Your task to perform on an android device: Search for amazon basics triple a on bestbuy.com, select the first entry, and add it to the cart. Image 0: 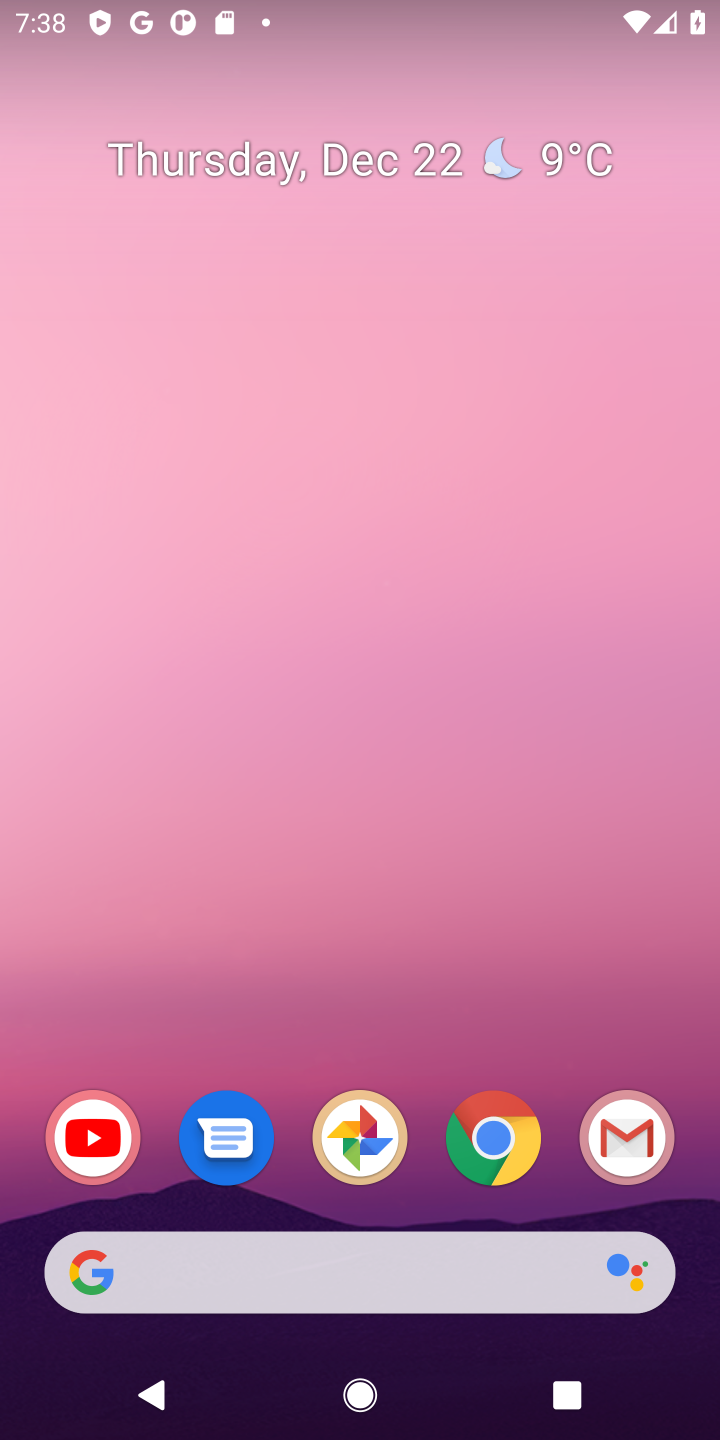
Step 0: click (503, 1137)
Your task to perform on an android device: Search for amazon basics triple a on bestbuy.com, select the first entry, and add it to the cart. Image 1: 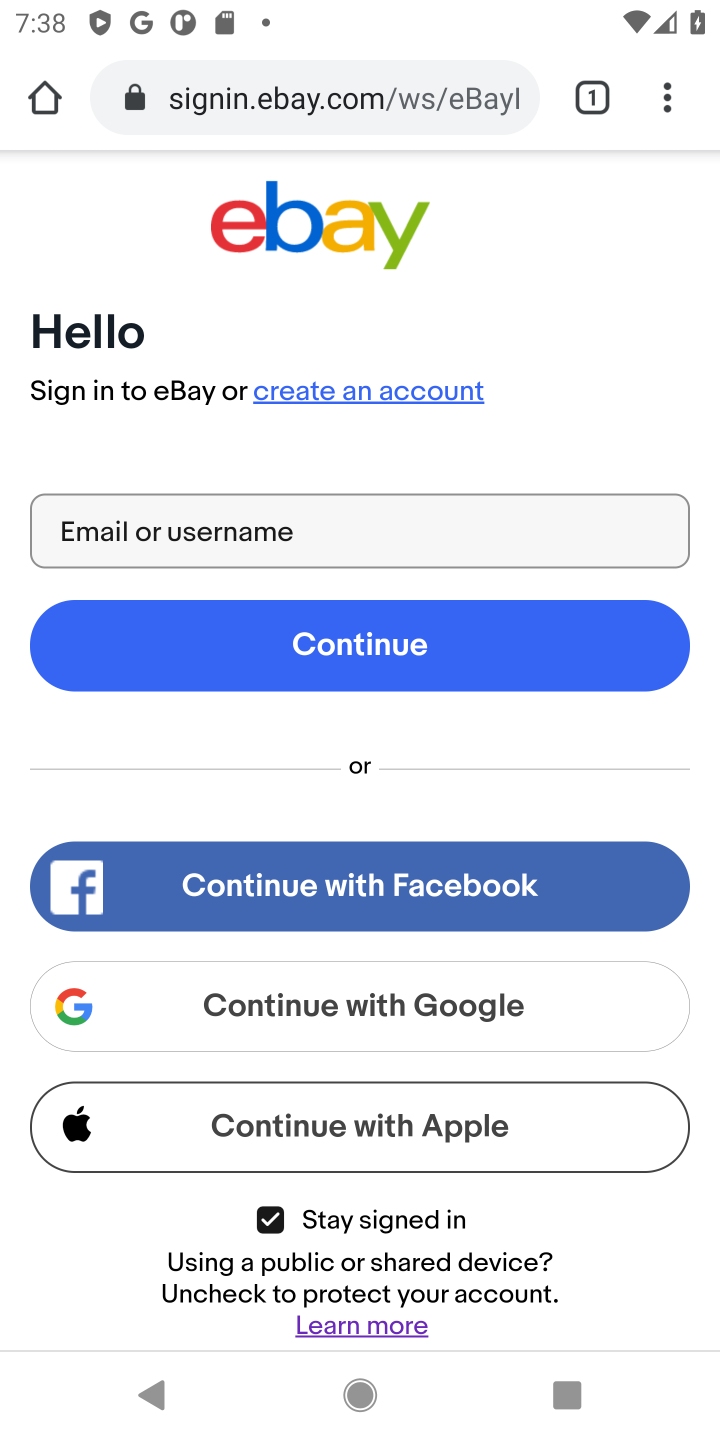
Step 1: click (33, 101)
Your task to perform on an android device: Search for amazon basics triple a on bestbuy.com, select the first entry, and add it to the cart. Image 2: 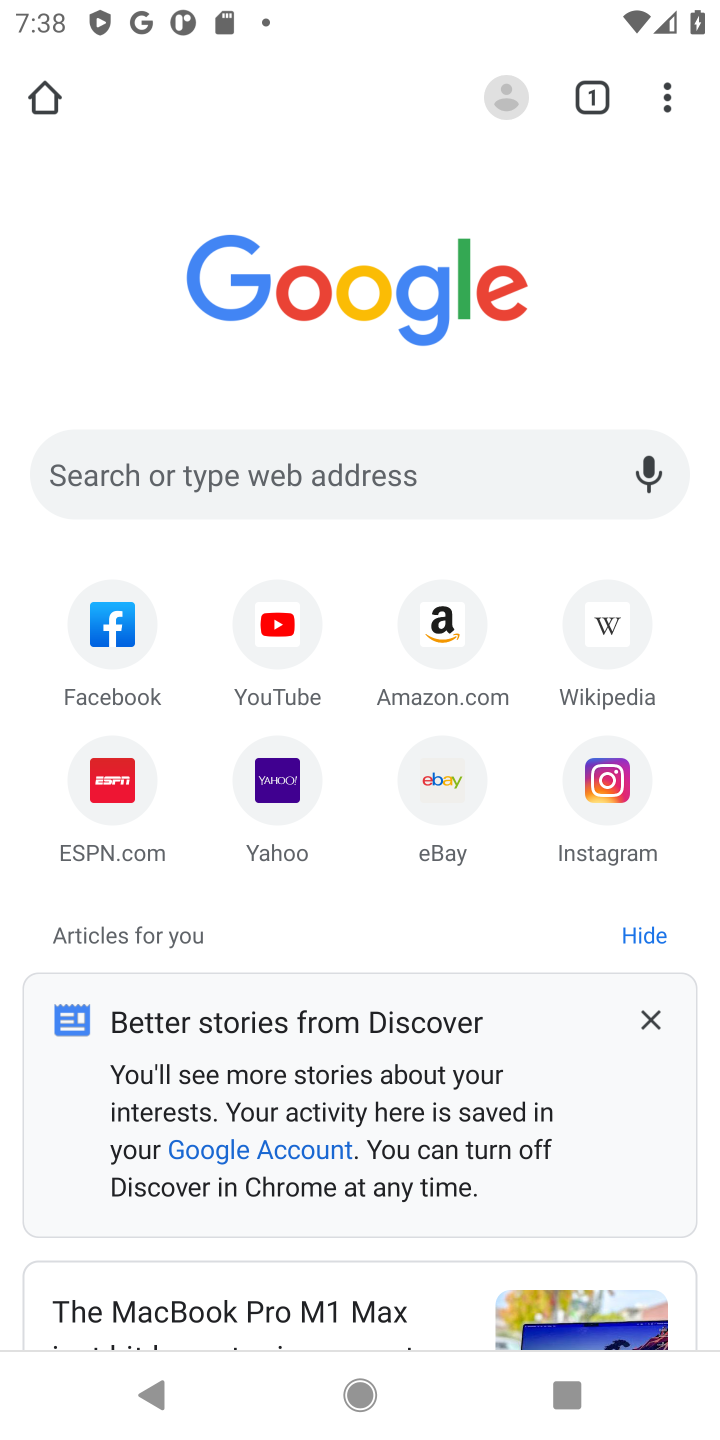
Step 2: click (321, 484)
Your task to perform on an android device: Search for amazon basics triple a on bestbuy.com, select the first entry, and add it to the cart. Image 3: 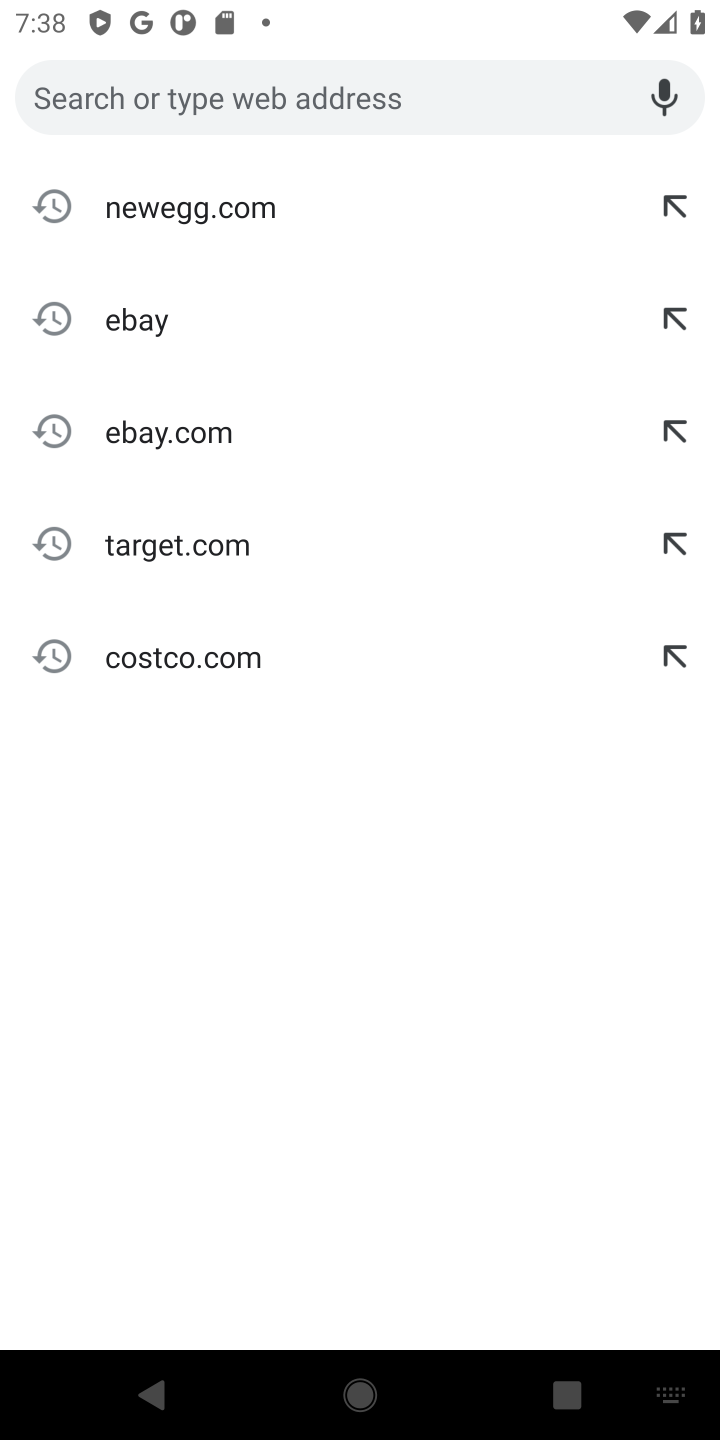
Step 3: drag from (682, 1412) to (534, 1327)
Your task to perform on an android device: Search for amazon basics triple a on bestbuy.com, select the first entry, and add it to the cart. Image 4: 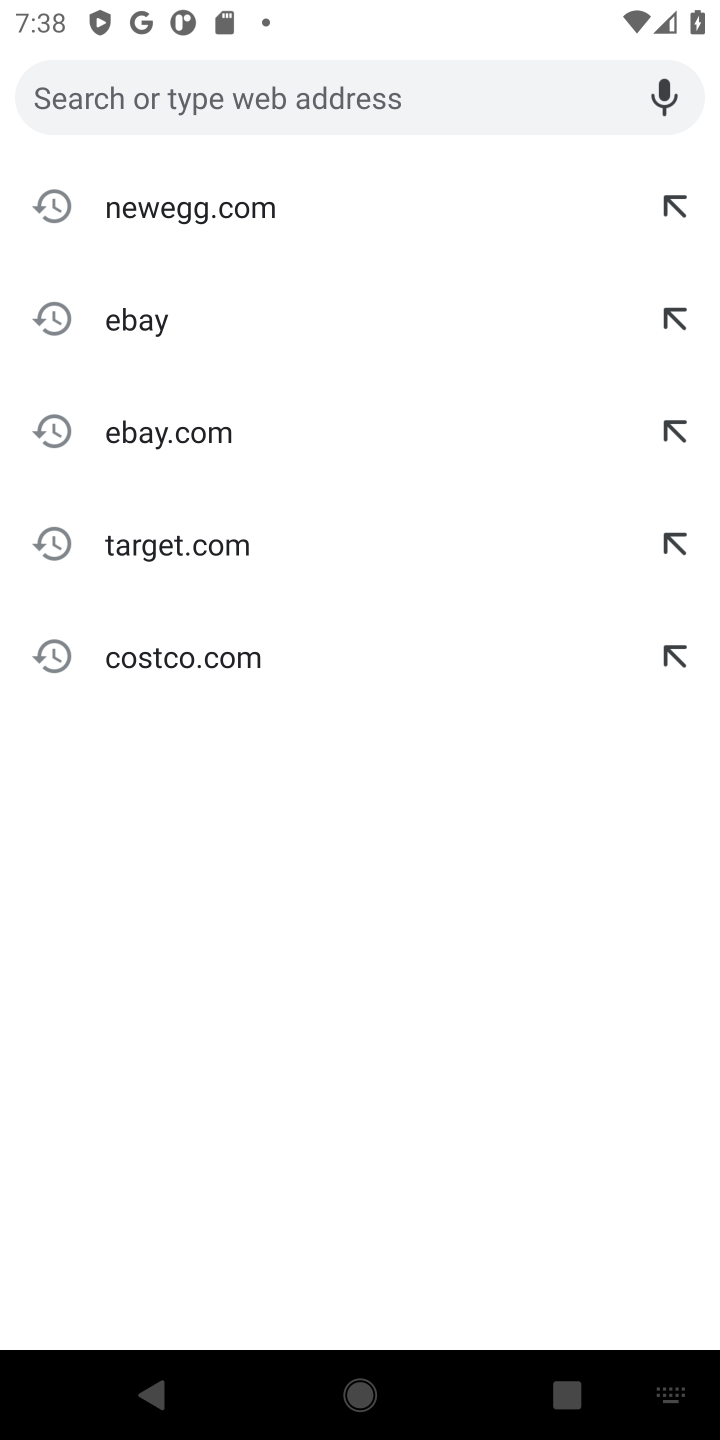
Step 4: type "bestbuy"
Your task to perform on an android device: Search for amazon basics triple a on bestbuy.com, select the first entry, and add it to the cart. Image 5: 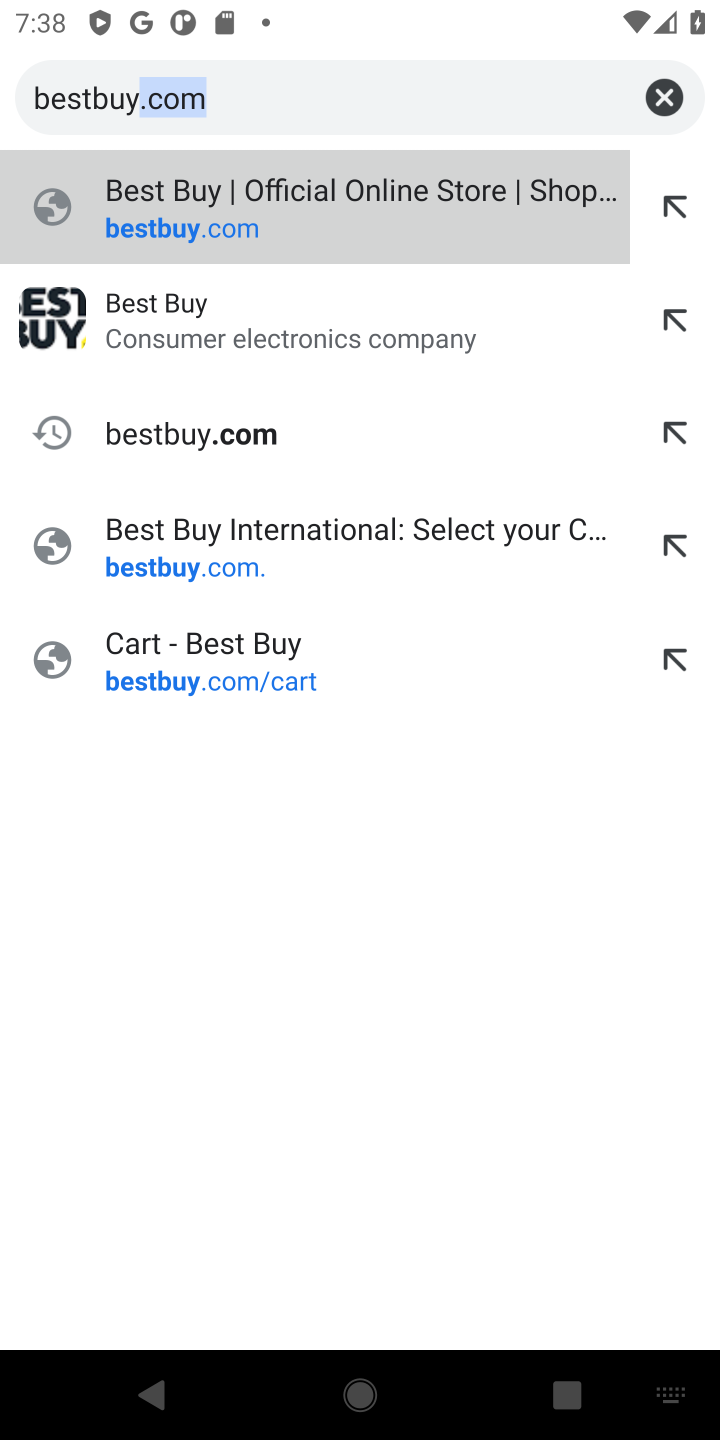
Step 5: click (354, 94)
Your task to perform on an android device: Search for amazon basics triple a on bestbuy.com, select the first entry, and add it to the cart. Image 6: 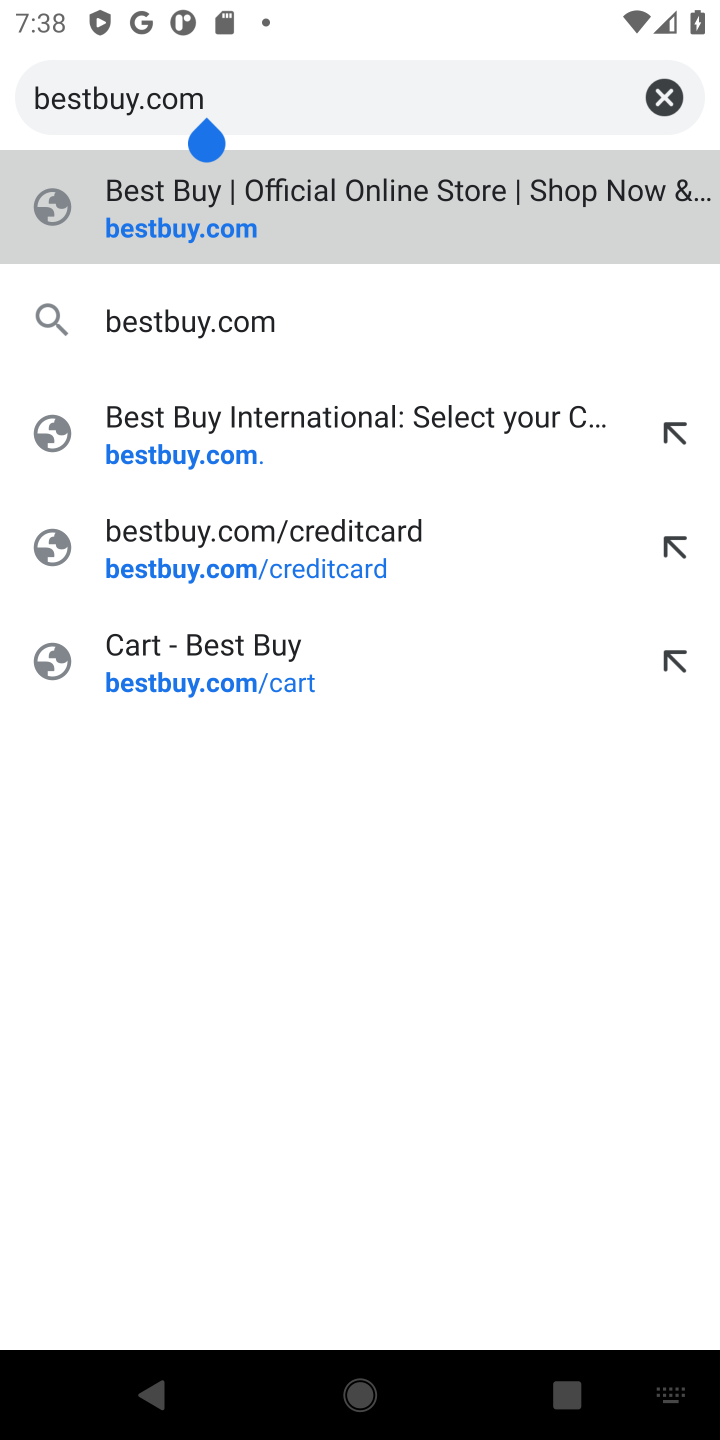
Step 6: click (254, 327)
Your task to perform on an android device: Search for amazon basics triple a on bestbuy.com, select the first entry, and add it to the cart. Image 7: 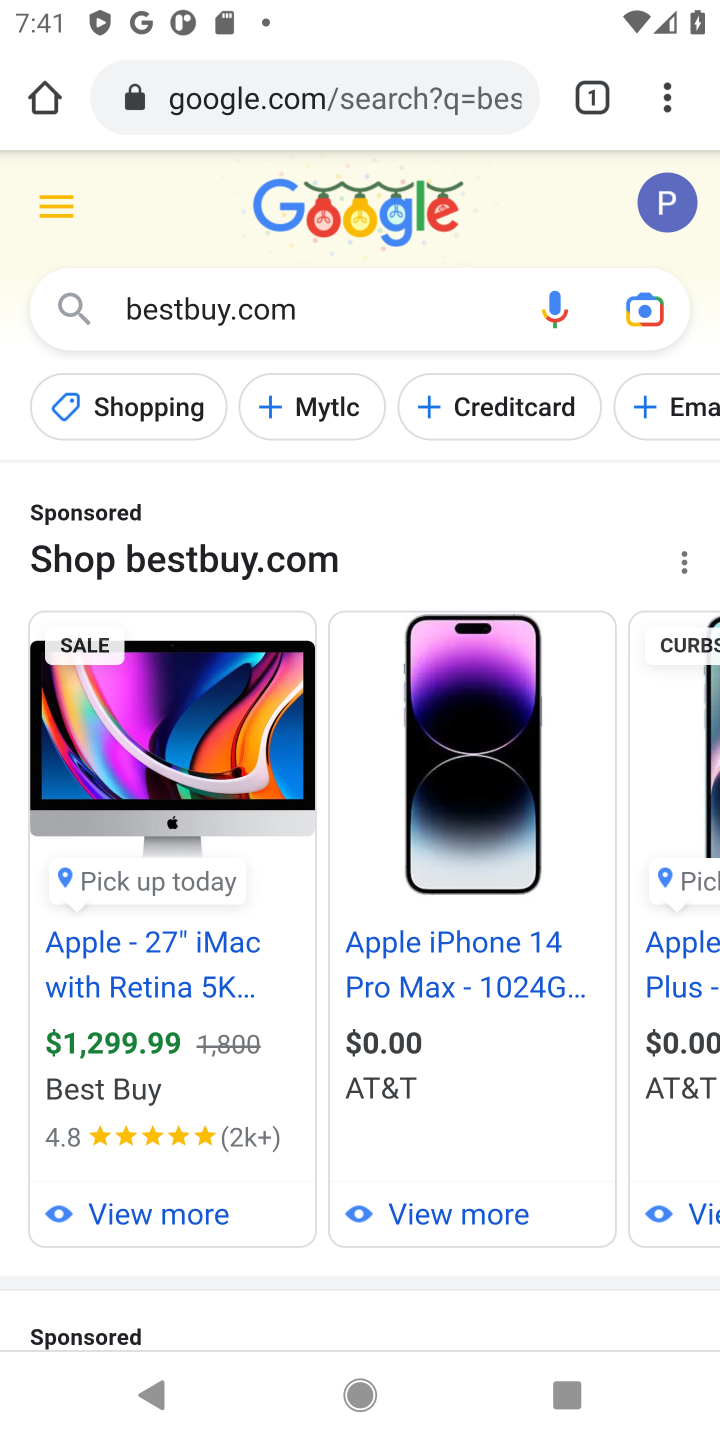
Step 7: drag from (410, 1263) to (499, 828)
Your task to perform on an android device: Search for amazon basics triple a on bestbuy.com, select the first entry, and add it to the cart. Image 8: 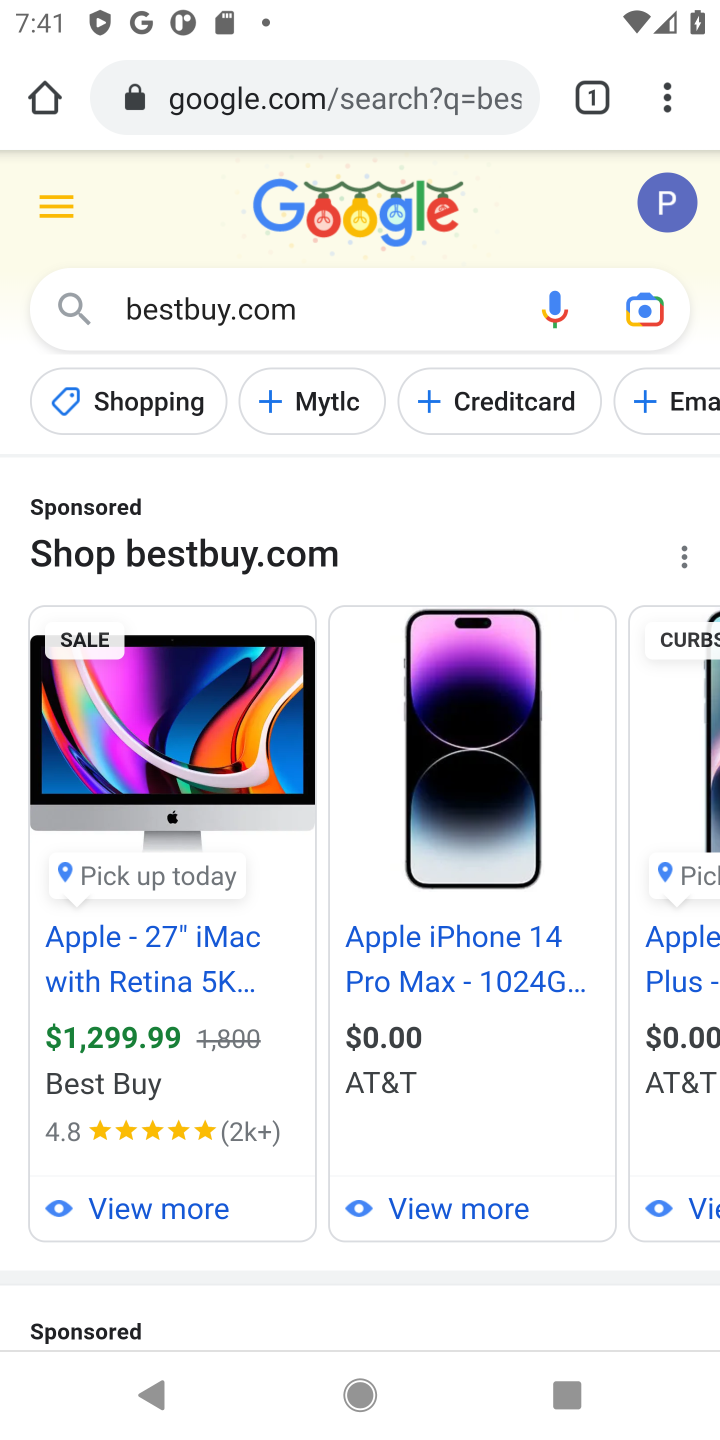
Step 8: drag from (242, 1271) to (287, 690)
Your task to perform on an android device: Search for amazon basics triple a on bestbuy.com, select the first entry, and add it to the cart. Image 9: 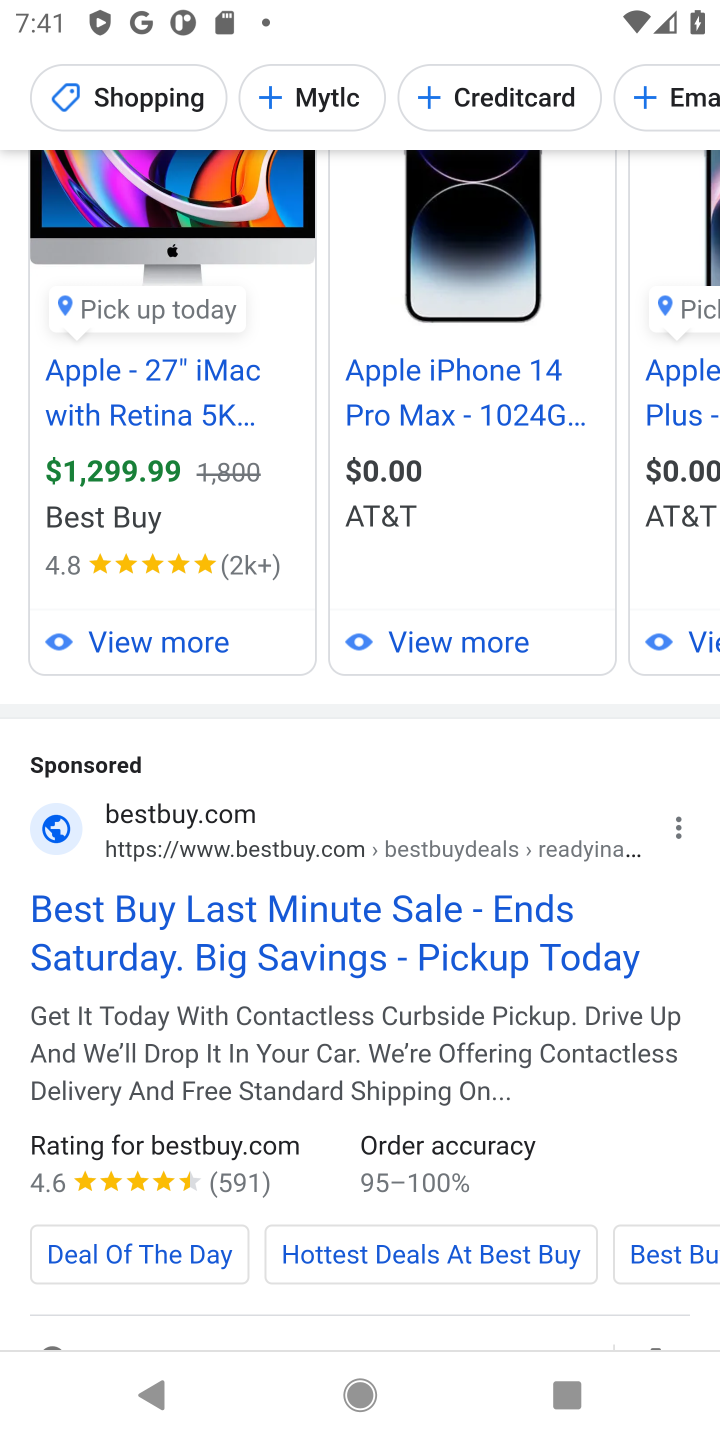
Step 9: click (210, 826)
Your task to perform on an android device: Search for amazon basics triple a on bestbuy.com, select the first entry, and add it to the cart. Image 10: 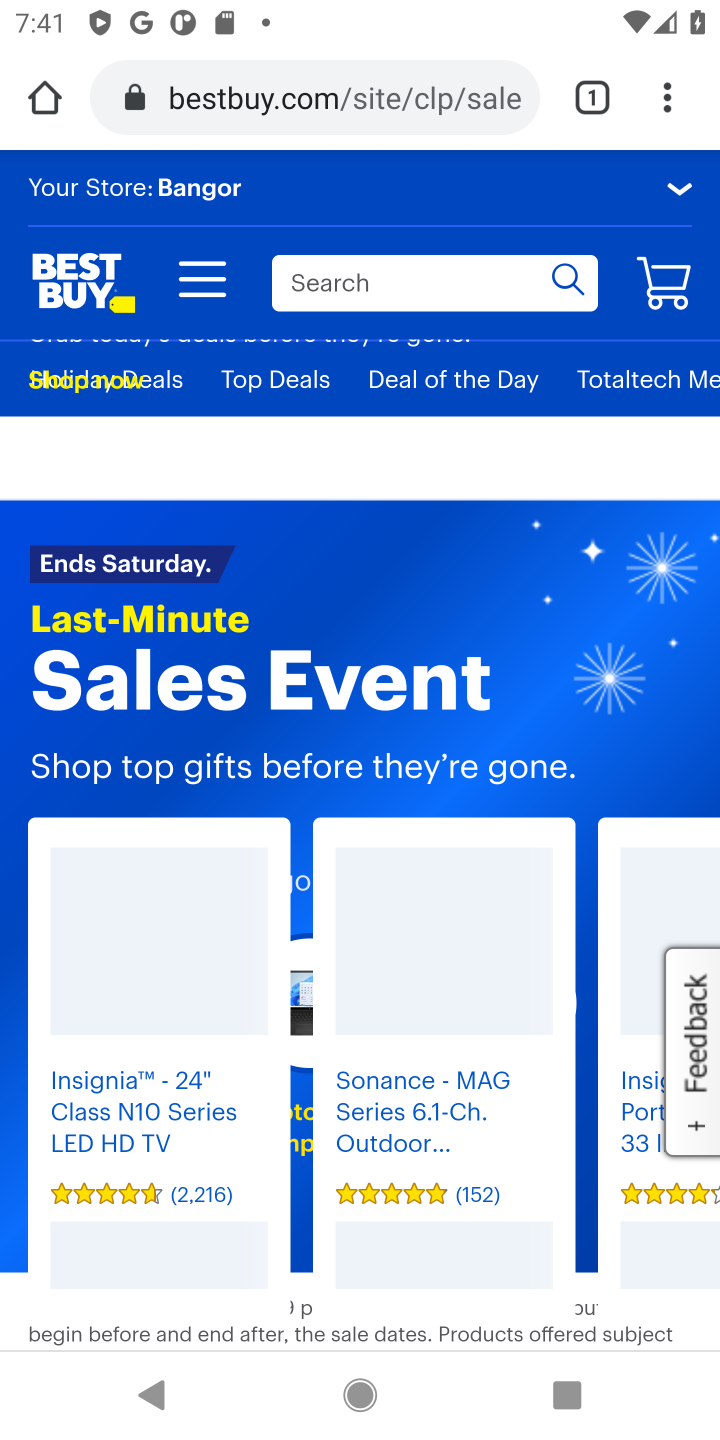
Step 10: click (508, 280)
Your task to perform on an android device: Search for amazon basics triple a on bestbuy.com, select the first entry, and add it to the cart. Image 11: 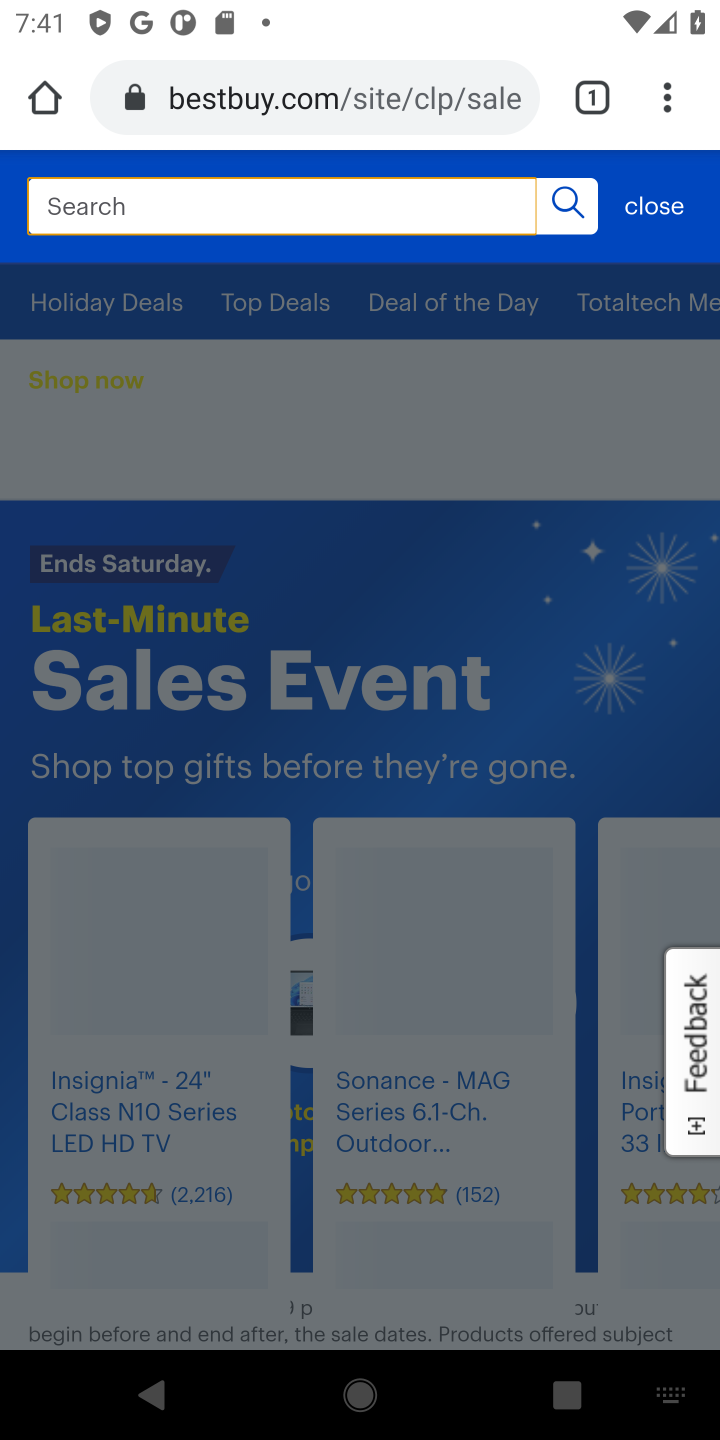
Step 11: press enter
Your task to perform on an android device: Search for amazon basics triple a on bestbuy.com, select the first entry, and add it to the cart. Image 12: 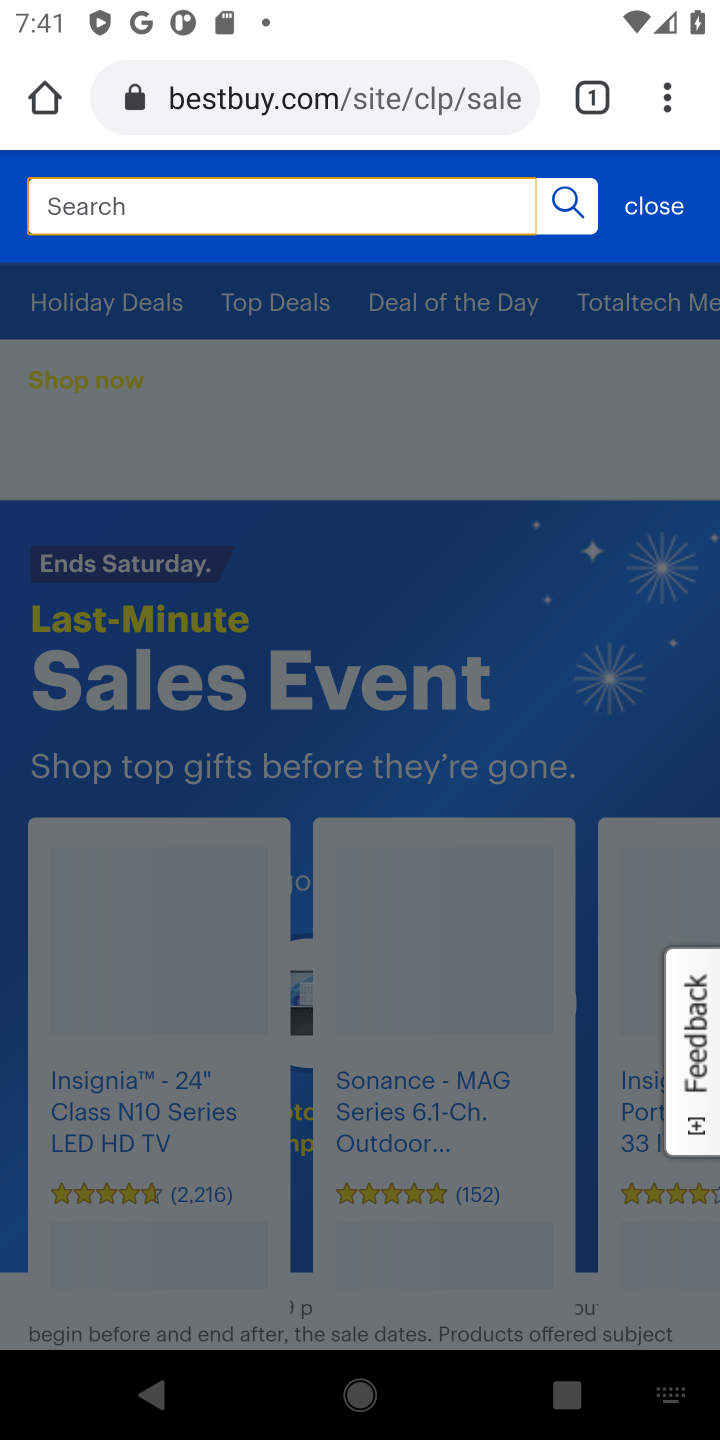
Step 12: type "amazon basics triple"
Your task to perform on an android device: Search for amazon basics triple a on bestbuy.com, select the first entry, and add it to the cart. Image 13: 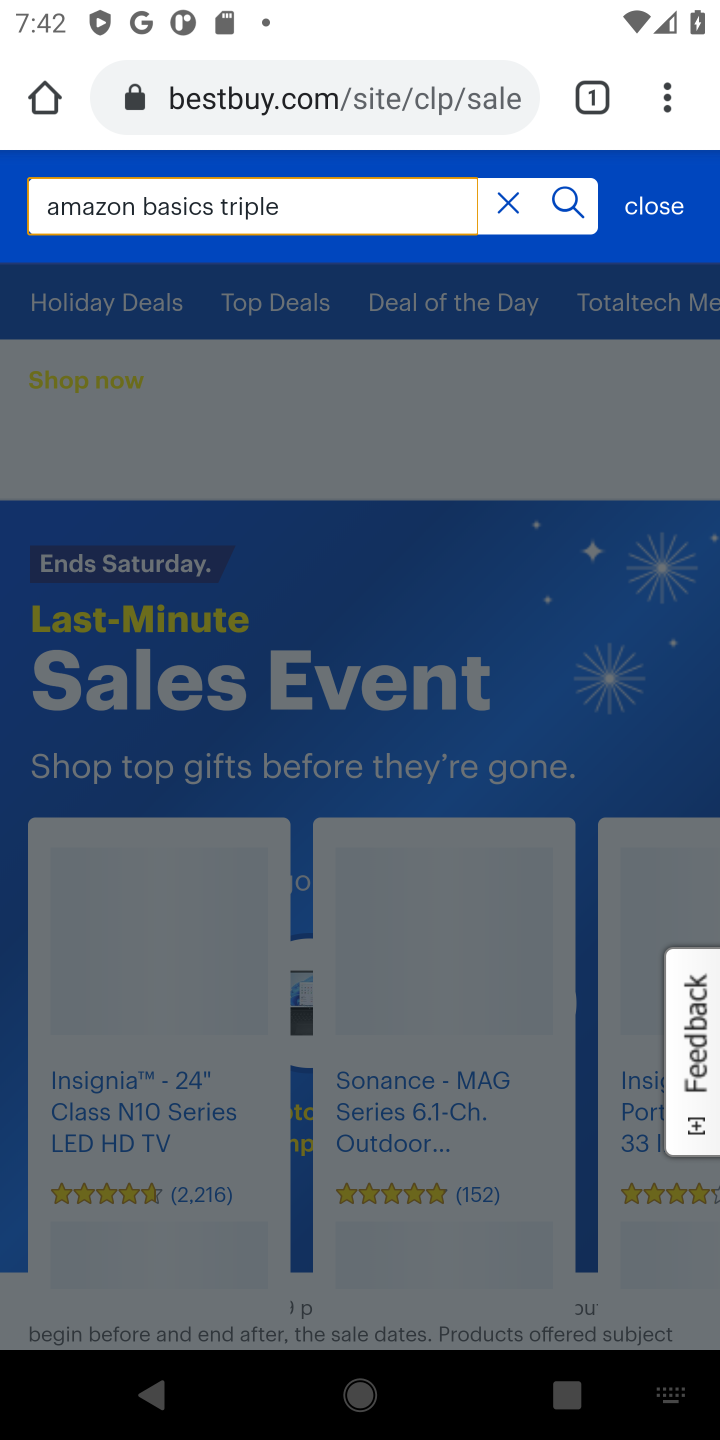
Step 13: click (577, 198)
Your task to perform on an android device: Search for amazon basics triple a on bestbuy.com, select the first entry, and add it to the cart. Image 14: 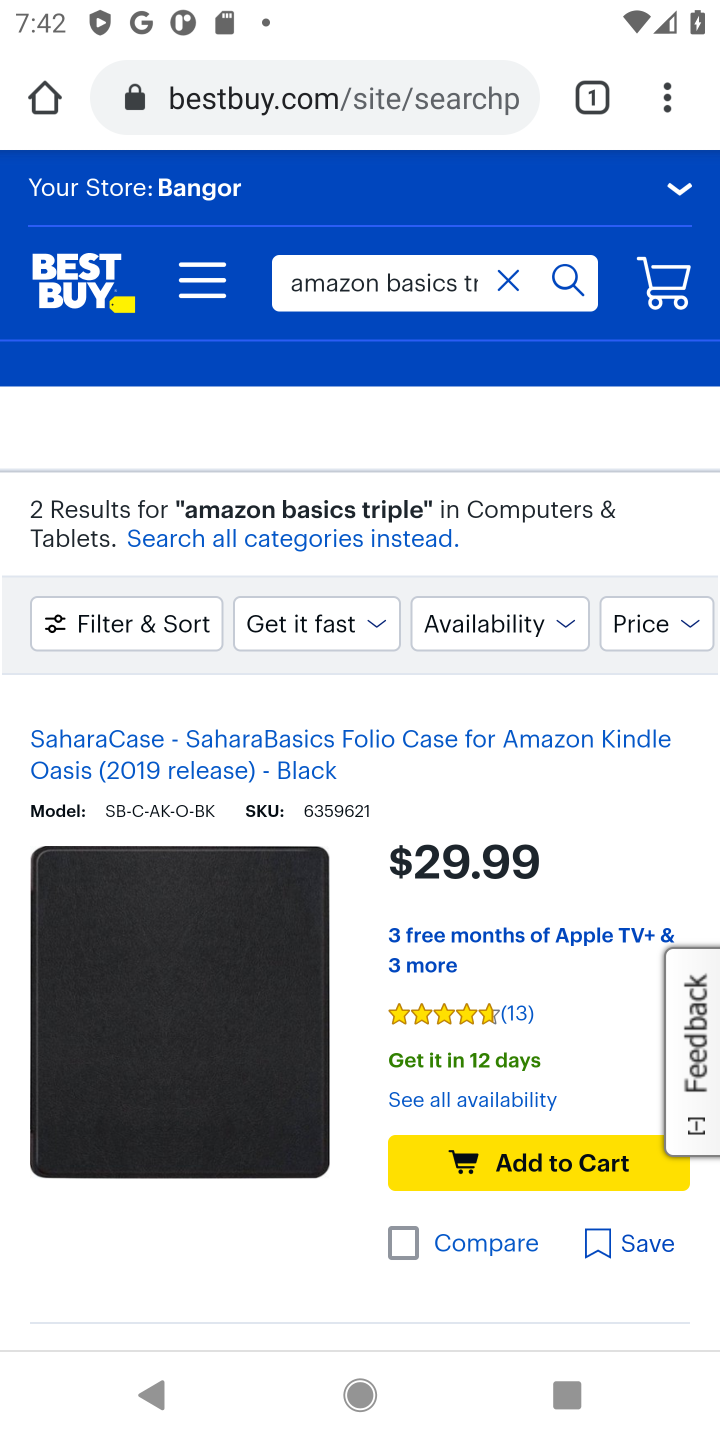
Step 14: drag from (296, 1014) to (326, 739)
Your task to perform on an android device: Search for amazon basics triple a on bestbuy.com, select the first entry, and add it to the cart. Image 15: 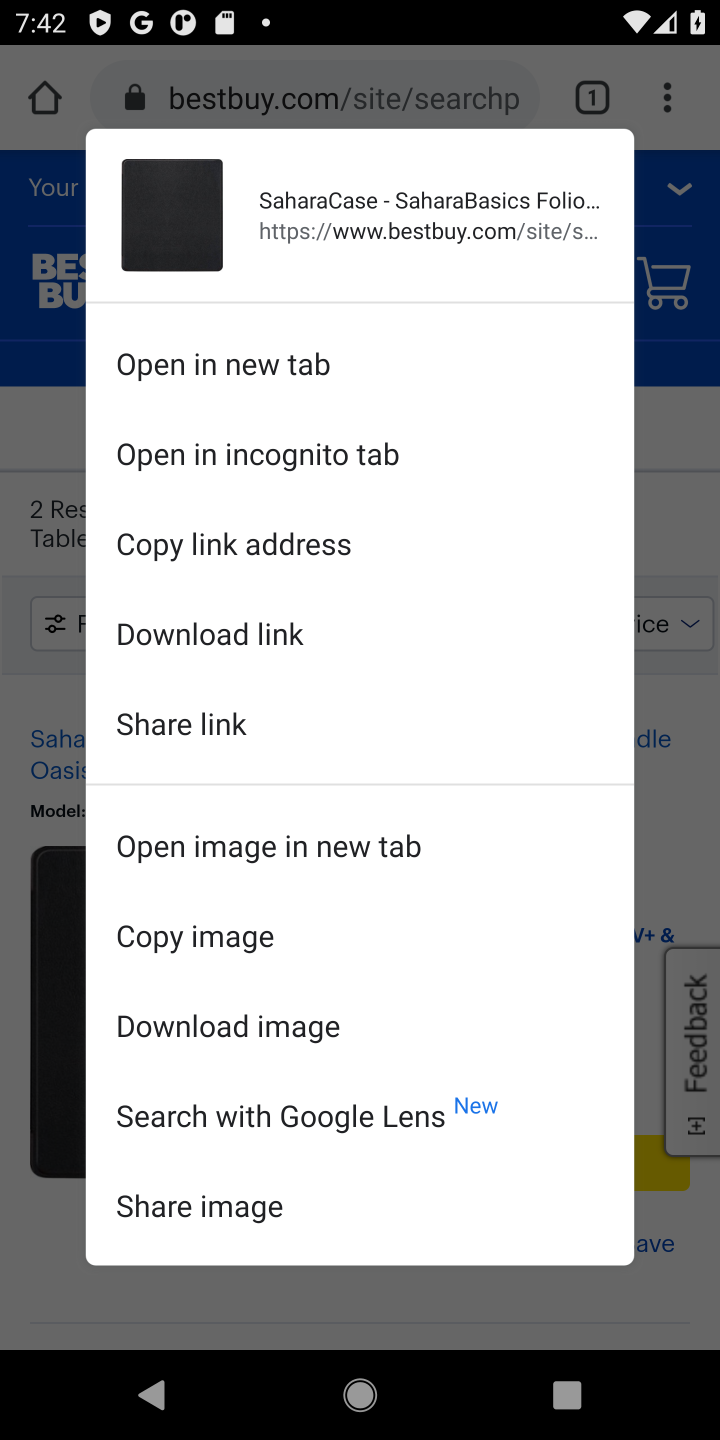
Step 15: click (675, 821)
Your task to perform on an android device: Search for amazon basics triple a on bestbuy.com, select the first entry, and add it to the cart. Image 16: 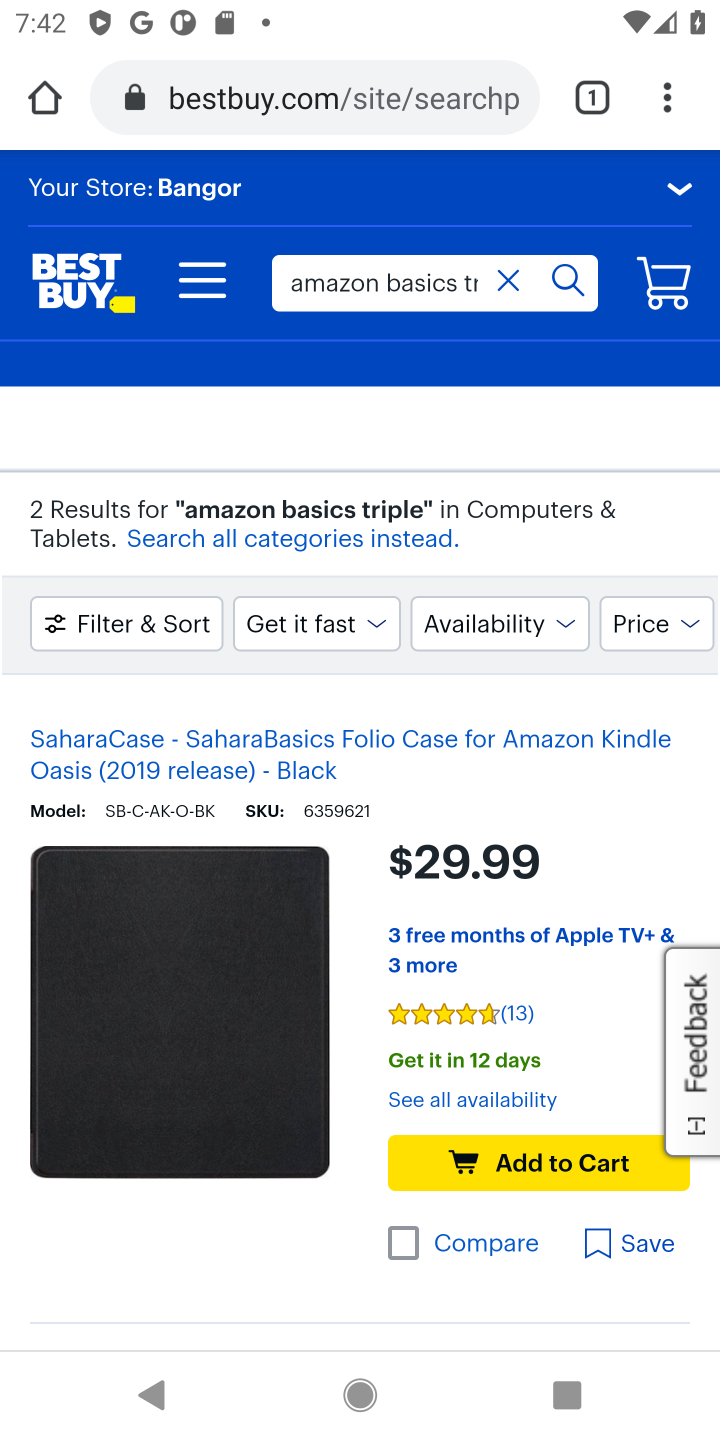
Step 16: drag from (564, 865) to (648, 450)
Your task to perform on an android device: Search for amazon basics triple a on bestbuy.com, select the first entry, and add it to the cart. Image 17: 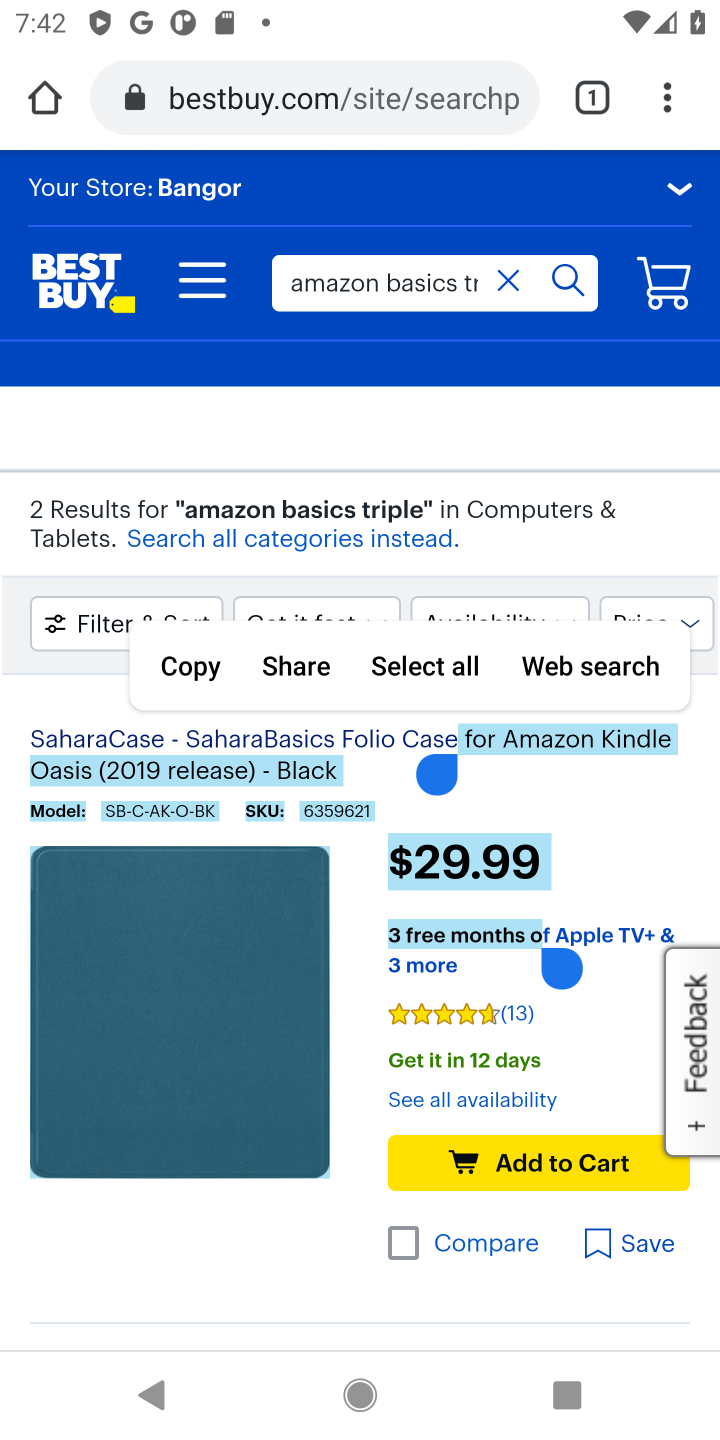
Step 17: click (292, 1278)
Your task to perform on an android device: Search for amazon basics triple a on bestbuy.com, select the first entry, and add it to the cart. Image 18: 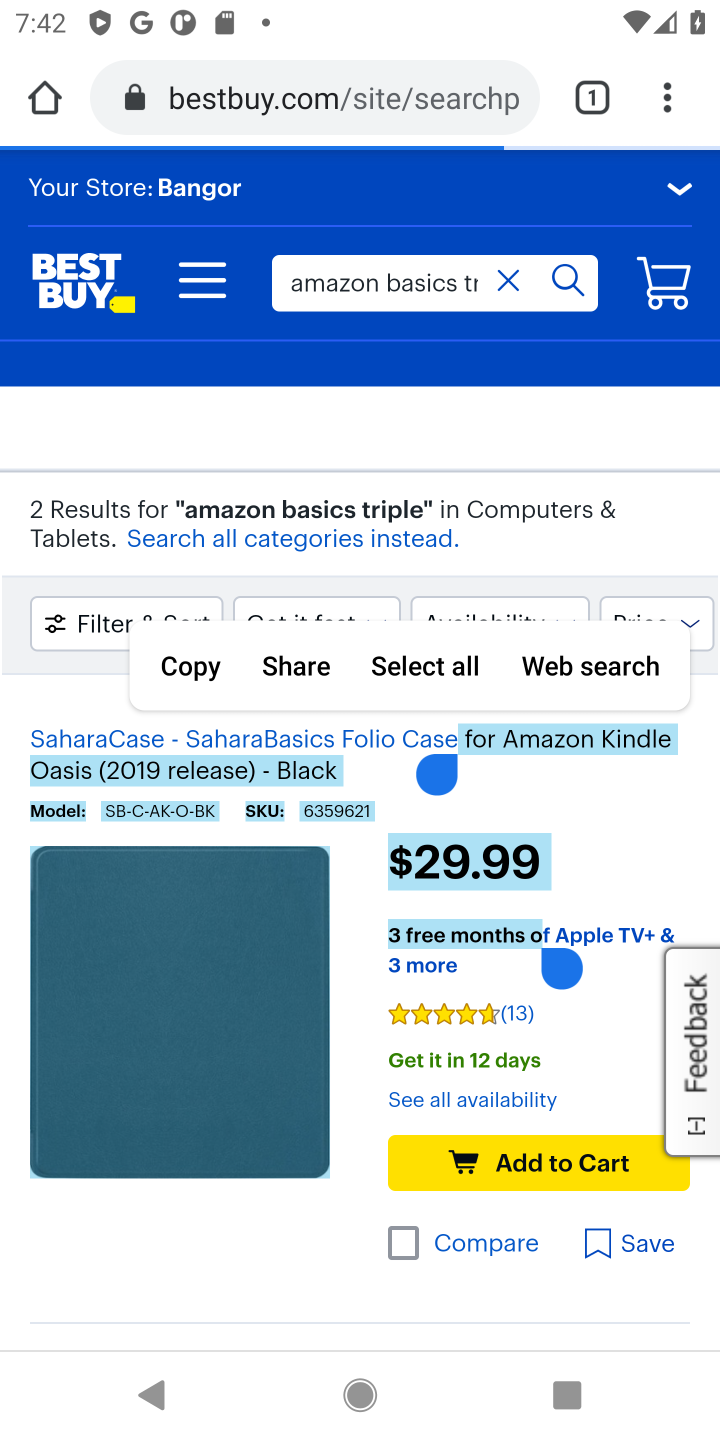
Step 18: click (292, 1278)
Your task to perform on an android device: Search for amazon basics triple a on bestbuy.com, select the first entry, and add it to the cart. Image 19: 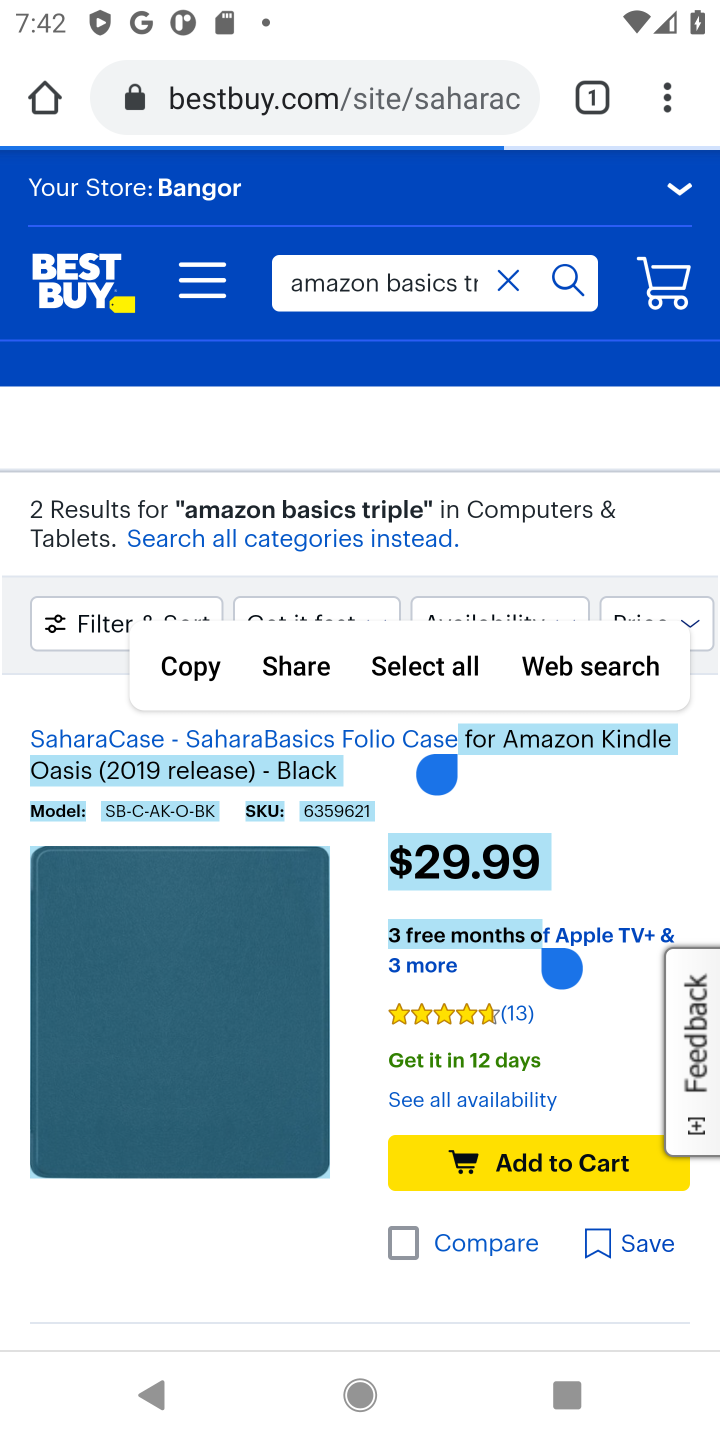
Step 19: click (642, 801)
Your task to perform on an android device: Search for amazon basics triple a on bestbuy.com, select the first entry, and add it to the cart. Image 20: 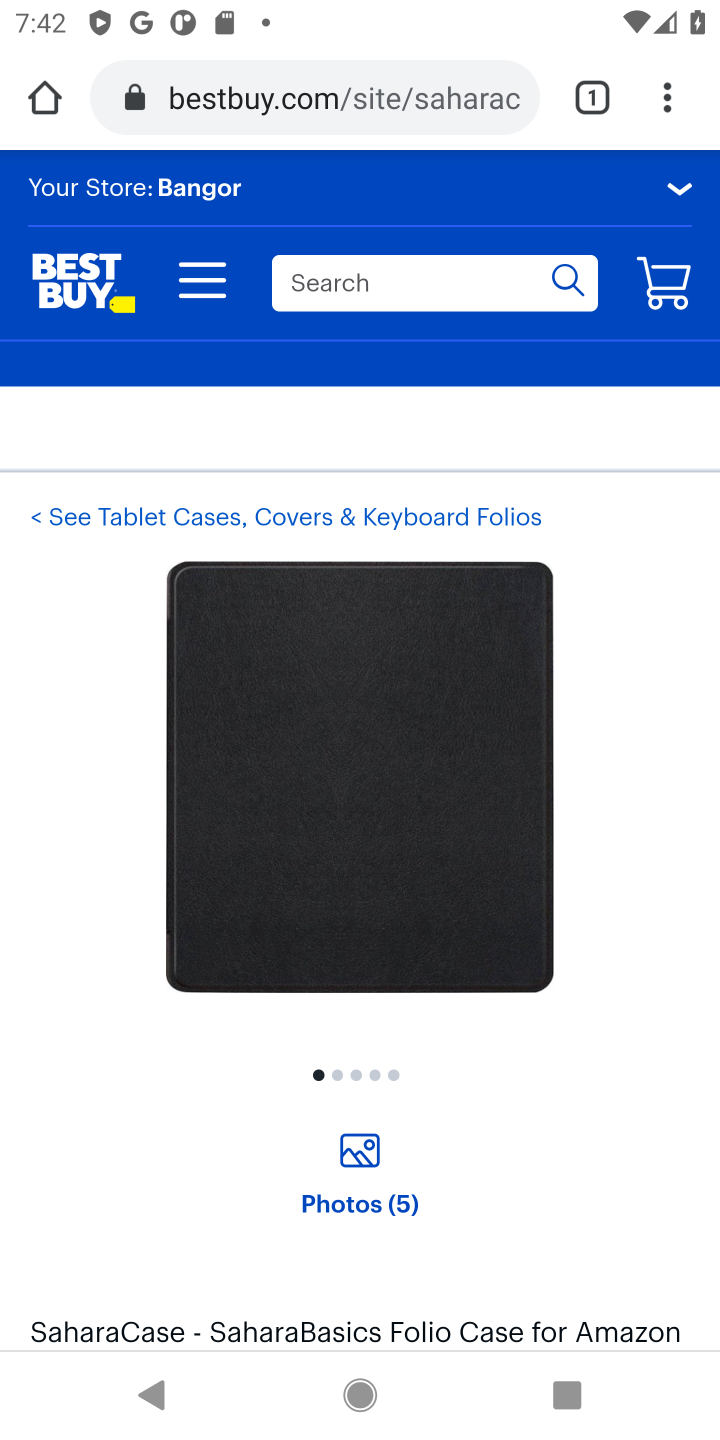
Step 20: task complete